Your task to perform on an android device: Open sound settings Image 0: 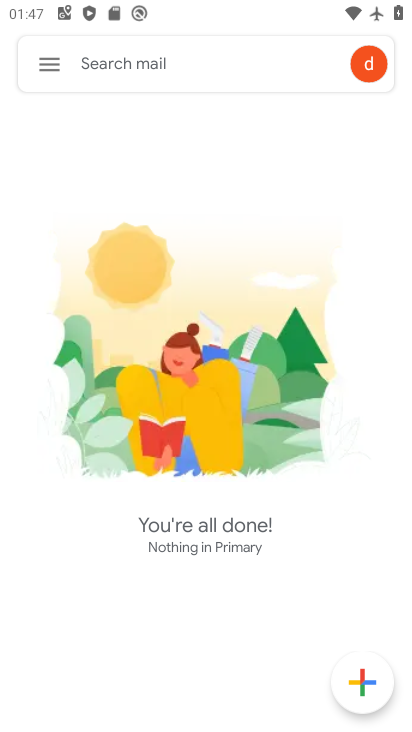
Step 0: press home button
Your task to perform on an android device: Open sound settings Image 1: 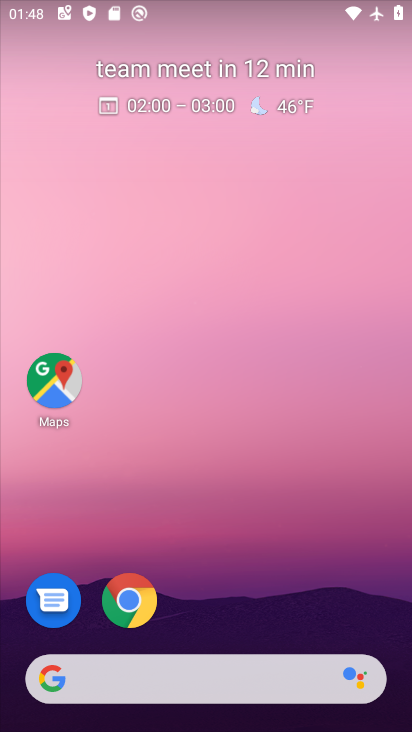
Step 1: drag from (238, 643) to (178, 4)
Your task to perform on an android device: Open sound settings Image 2: 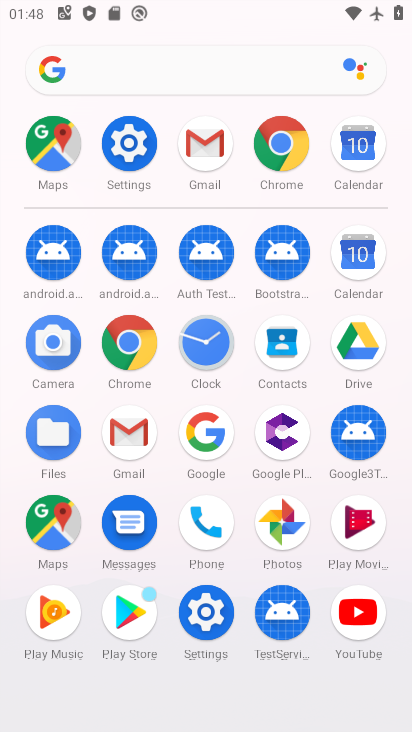
Step 2: click (125, 151)
Your task to perform on an android device: Open sound settings Image 3: 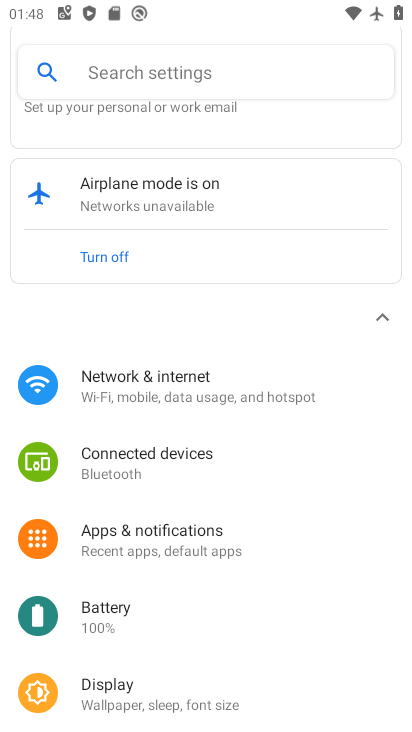
Step 3: drag from (172, 666) to (171, 245)
Your task to perform on an android device: Open sound settings Image 4: 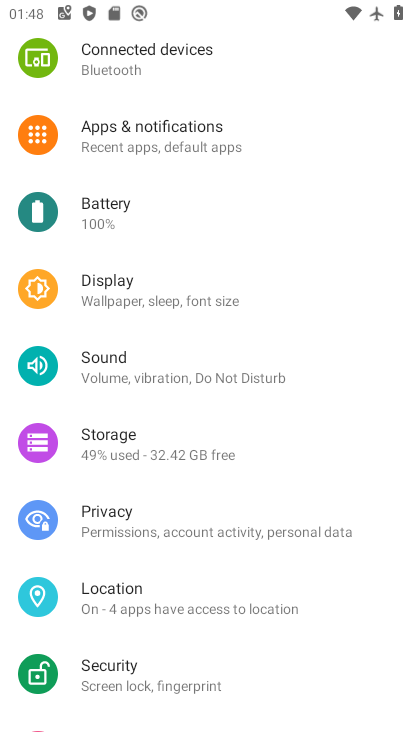
Step 4: click (116, 367)
Your task to perform on an android device: Open sound settings Image 5: 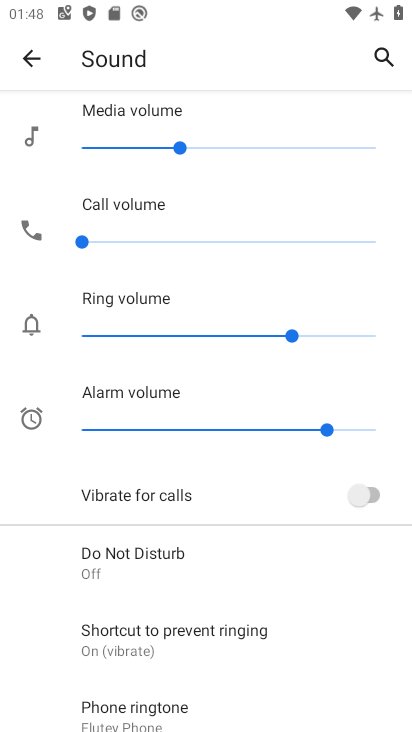
Step 5: task complete